Your task to perform on an android device: change the upload size in google photos Image 0: 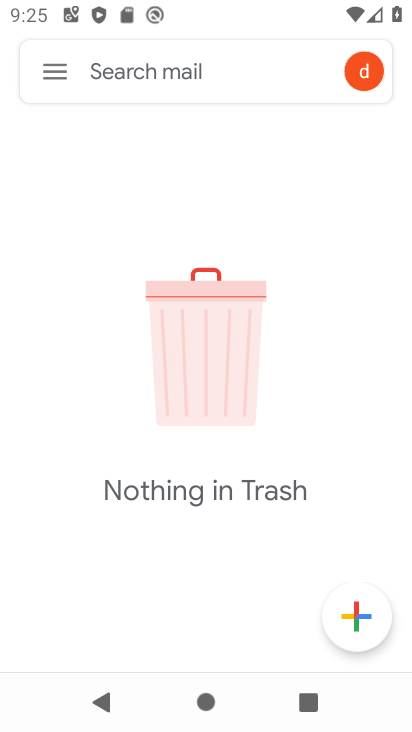
Step 0: press home button
Your task to perform on an android device: change the upload size in google photos Image 1: 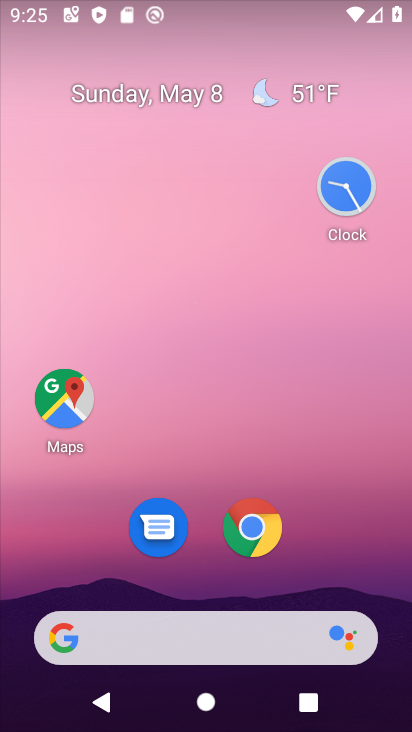
Step 1: drag from (306, 556) to (290, 122)
Your task to perform on an android device: change the upload size in google photos Image 2: 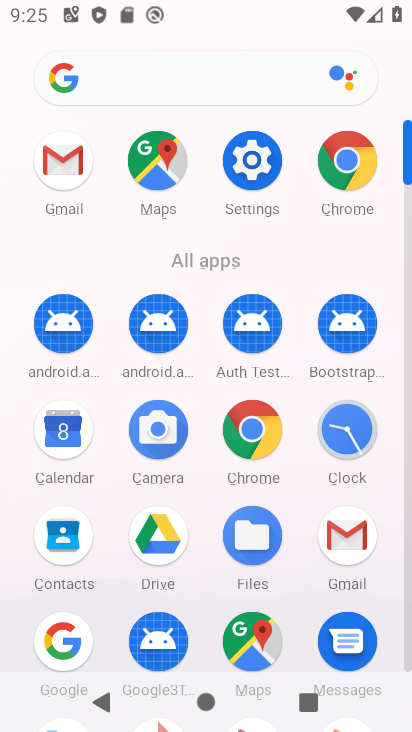
Step 2: drag from (293, 600) to (278, 181)
Your task to perform on an android device: change the upload size in google photos Image 3: 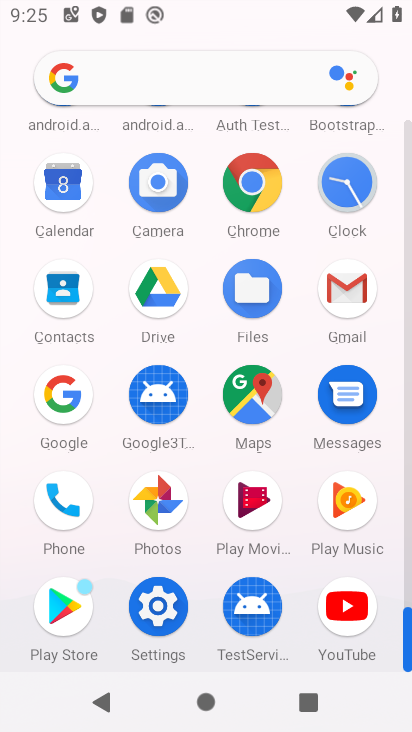
Step 3: click (156, 487)
Your task to perform on an android device: change the upload size in google photos Image 4: 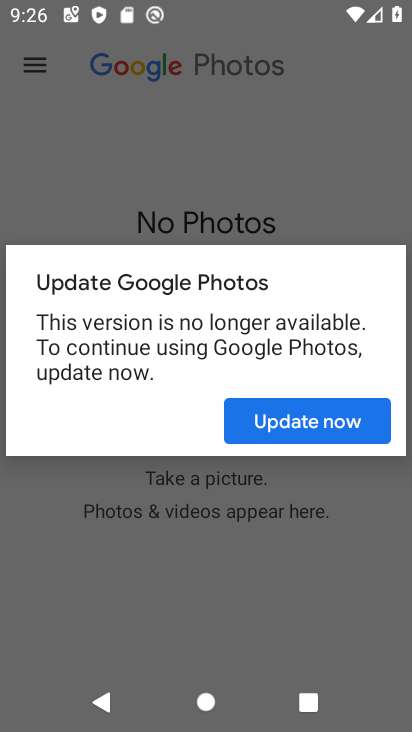
Step 4: click (312, 418)
Your task to perform on an android device: change the upload size in google photos Image 5: 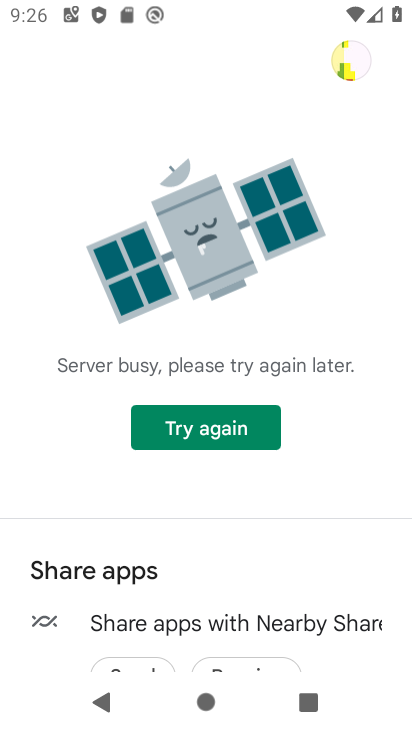
Step 5: click (254, 421)
Your task to perform on an android device: change the upload size in google photos Image 6: 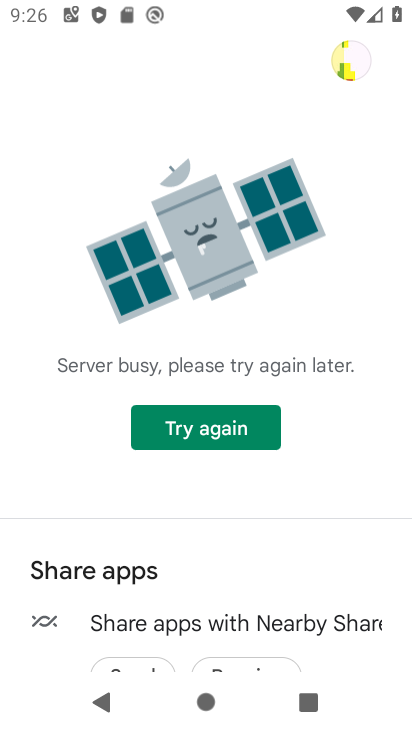
Step 6: click (253, 418)
Your task to perform on an android device: change the upload size in google photos Image 7: 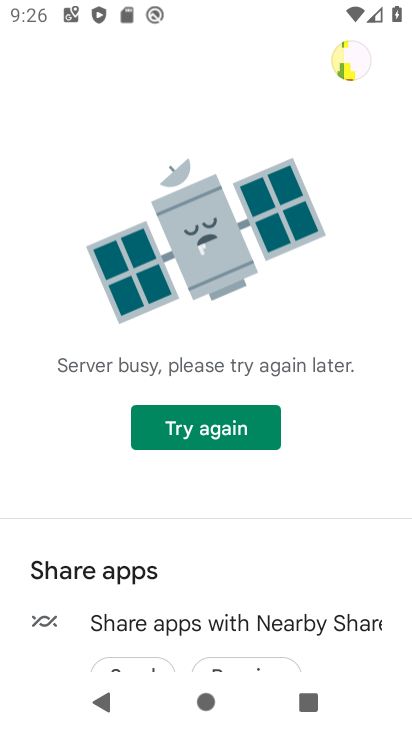
Step 7: click (190, 427)
Your task to perform on an android device: change the upload size in google photos Image 8: 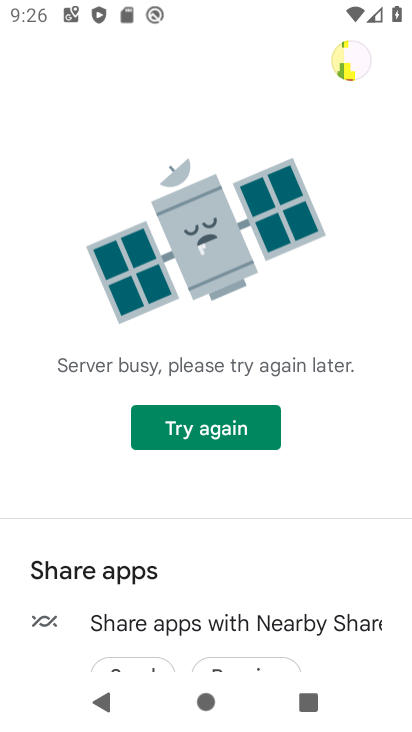
Step 8: task complete